Your task to perform on an android device: uninstall "Google Sheets" Image 0: 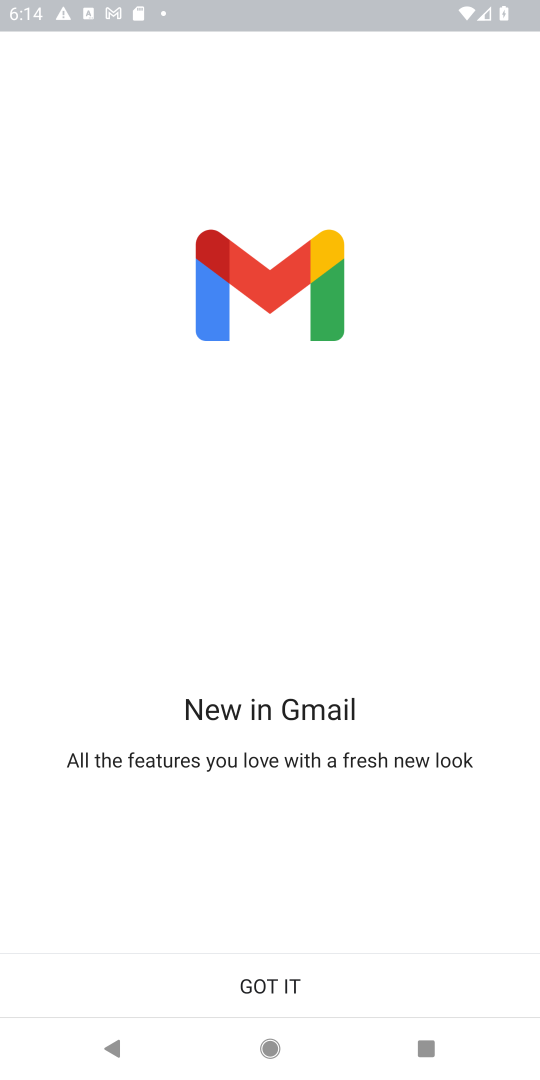
Step 0: press home button
Your task to perform on an android device: uninstall "Google Sheets" Image 1: 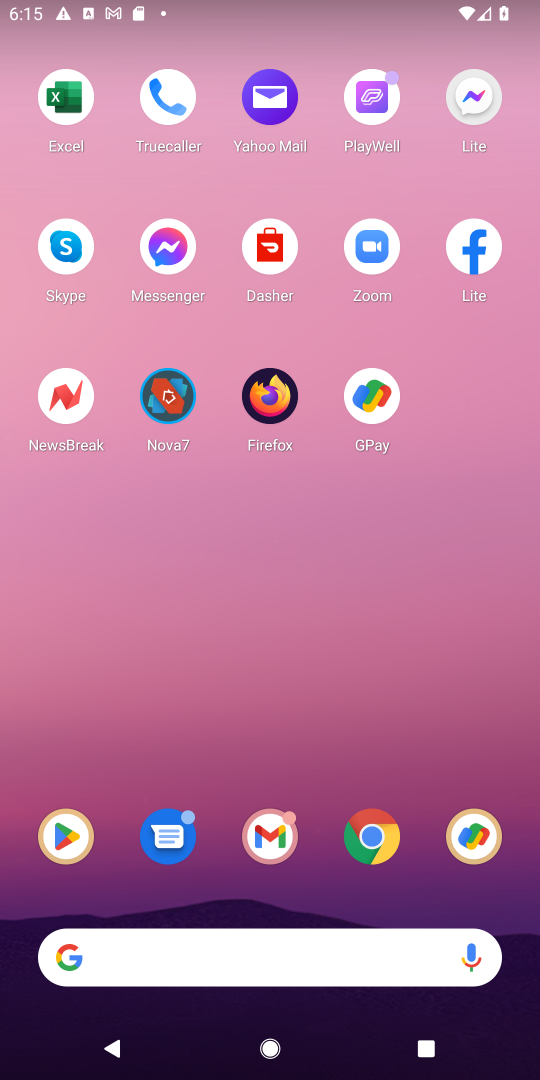
Step 1: press home button
Your task to perform on an android device: uninstall "Google Sheets" Image 2: 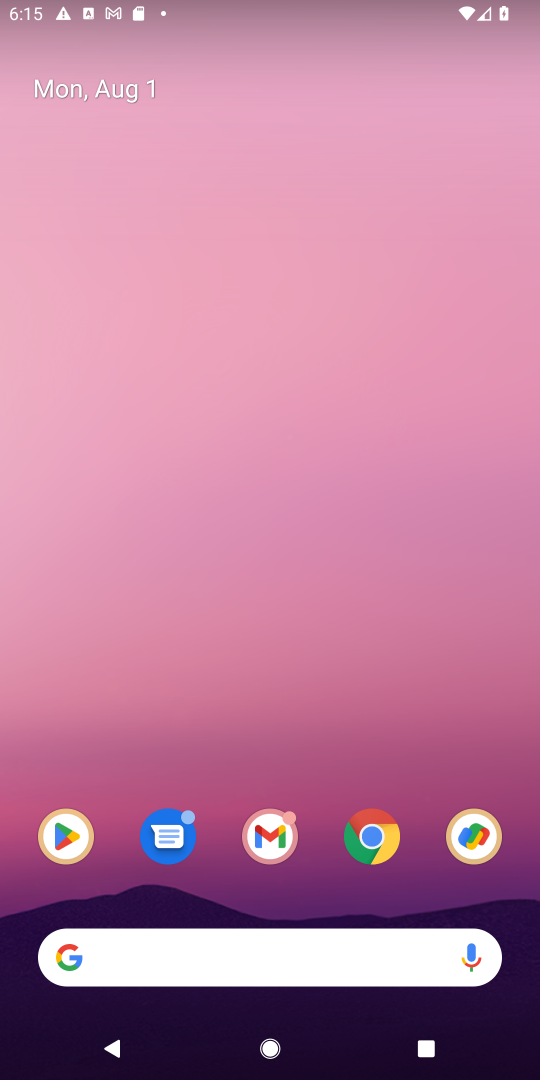
Step 2: click (54, 835)
Your task to perform on an android device: uninstall "Google Sheets" Image 3: 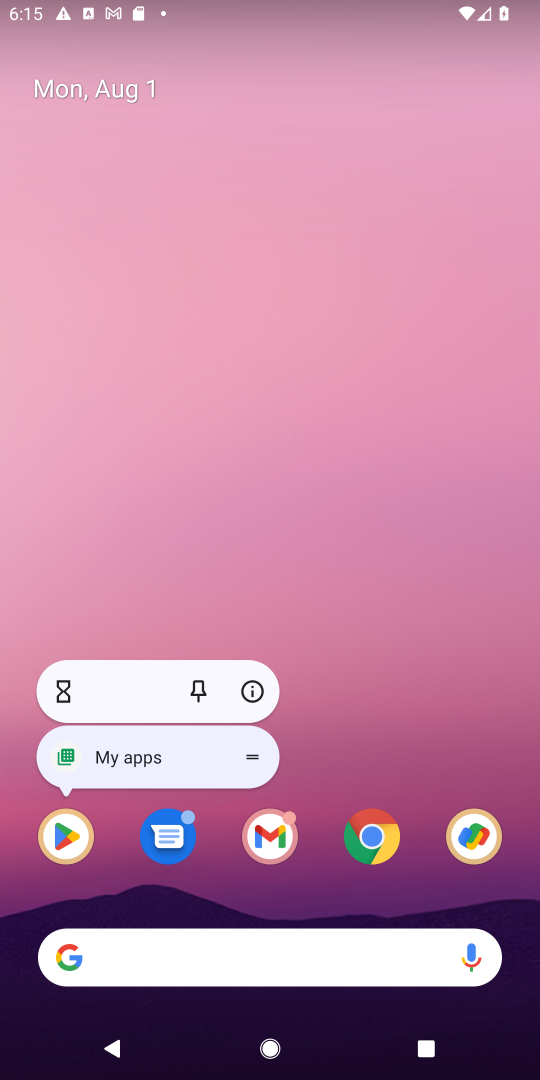
Step 3: click (57, 837)
Your task to perform on an android device: uninstall "Google Sheets" Image 4: 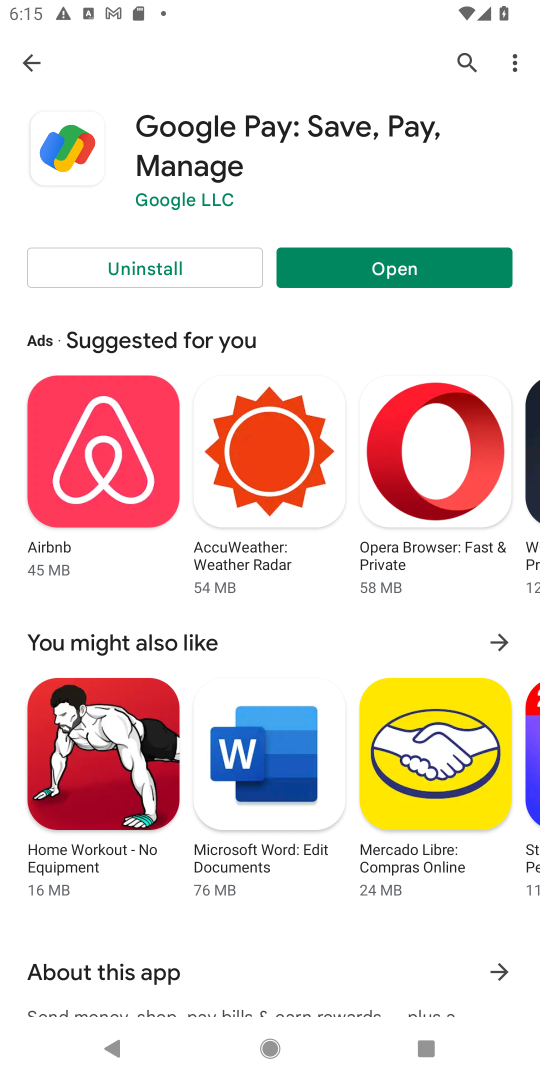
Step 4: click (470, 50)
Your task to perform on an android device: uninstall "Google Sheets" Image 5: 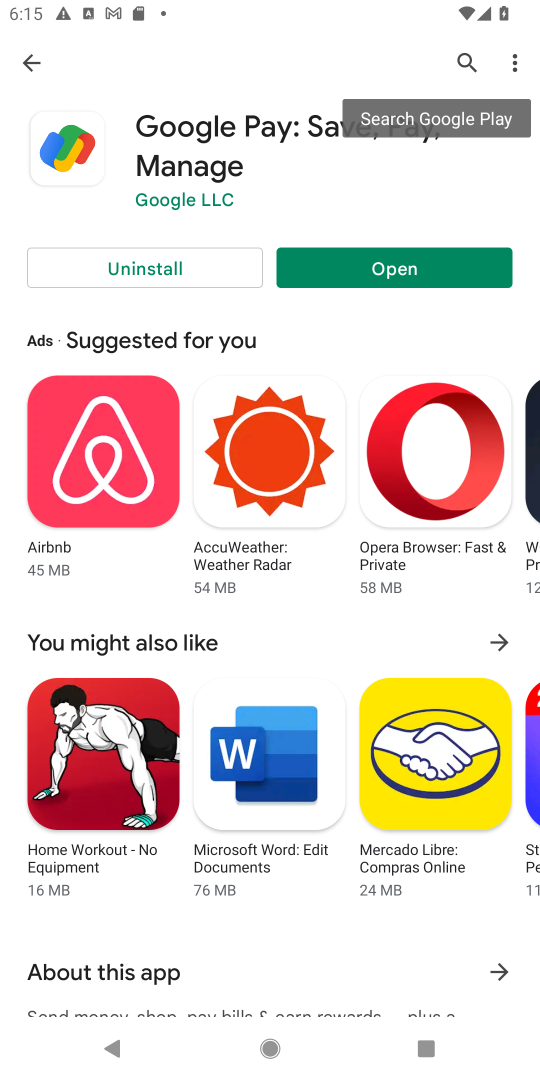
Step 5: click (465, 56)
Your task to perform on an android device: uninstall "Google Sheets" Image 6: 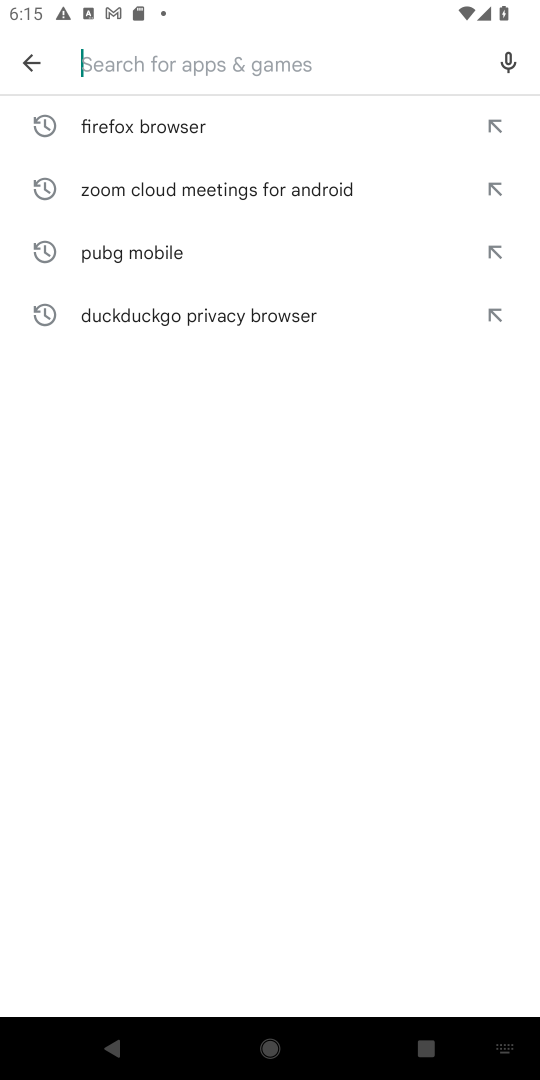
Step 6: type "Google Sheets"
Your task to perform on an android device: uninstall "Google Sheets" Image 7: 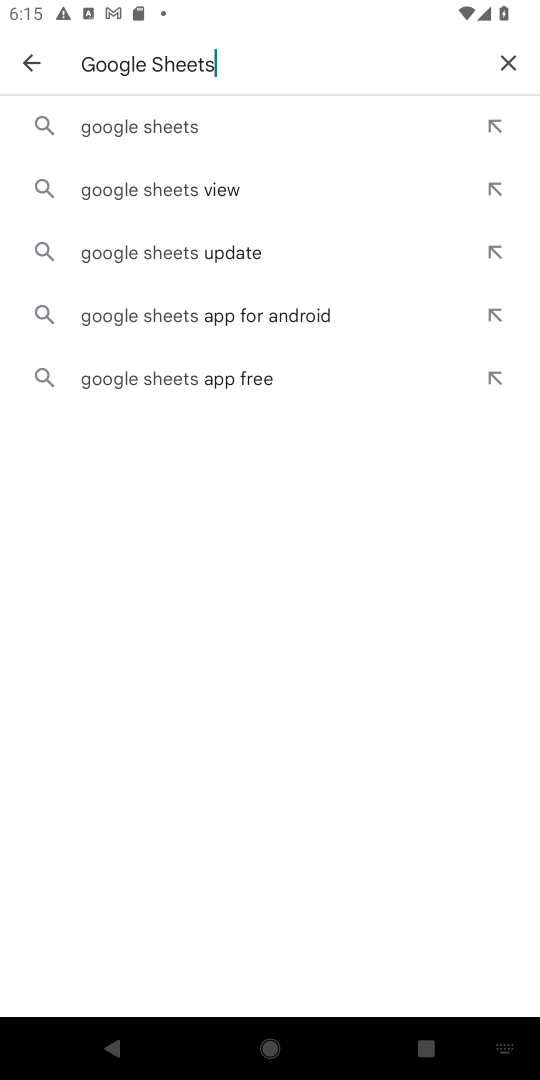
Step 7: click (120, 133)
Your task to perform on an android device: uninstall "Google Sheets" Image 8: 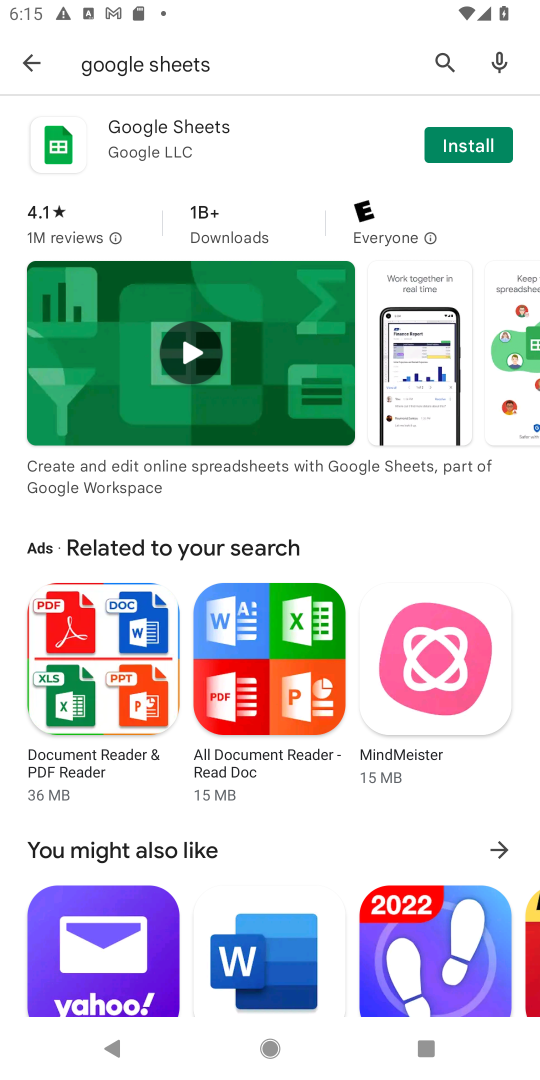
Step 8: task complete